Your task to perform on an android device: Go to display settings Image 0: 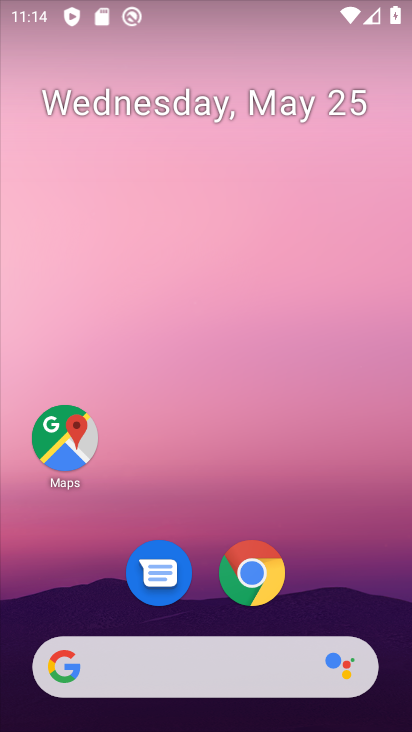
Step 0: click (145, 94)
Your task to perform on an android device: Go to display settings Image 1: 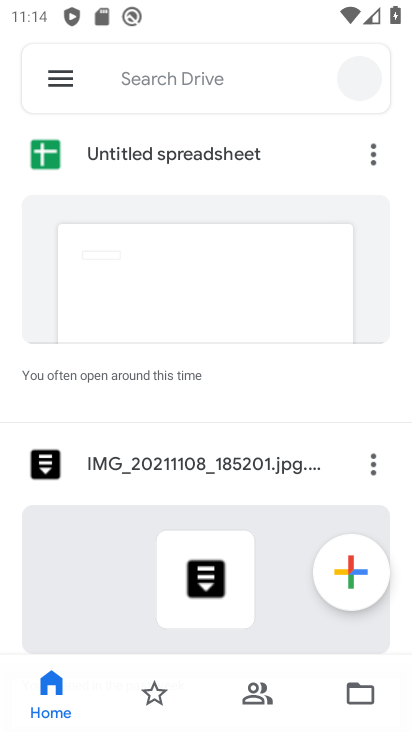
Step 1: press home button
Your task to perform on an android device: Go to display settings Image 2: 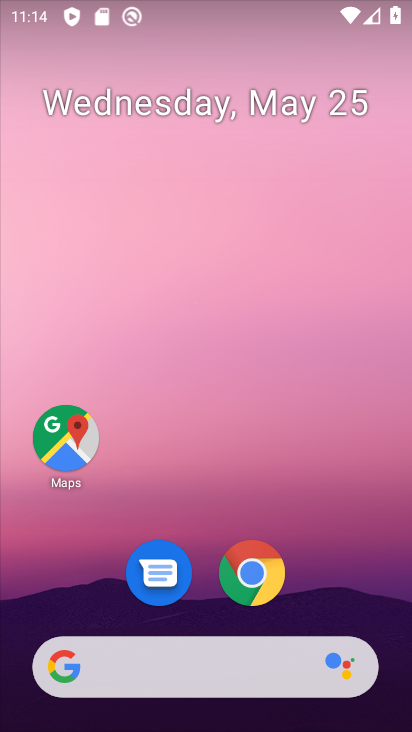
Step 2: drag from (199, 689) to (237, 170)
Your task to perform on an android device: Go to display settings Image 3: 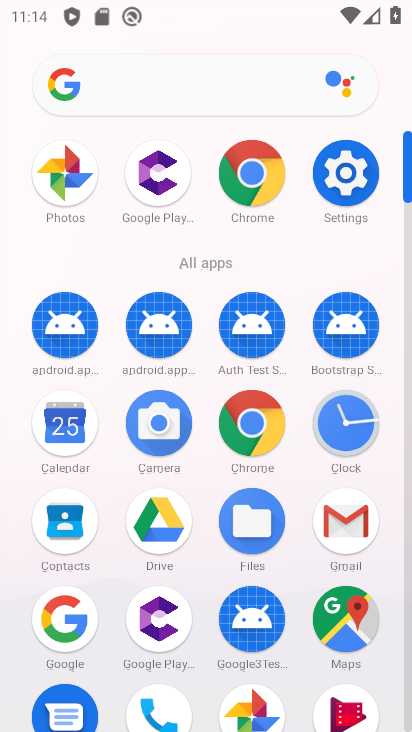
Step 3: click (332, 194)
Your task to perform on an android device: Go to display settings Image 4: 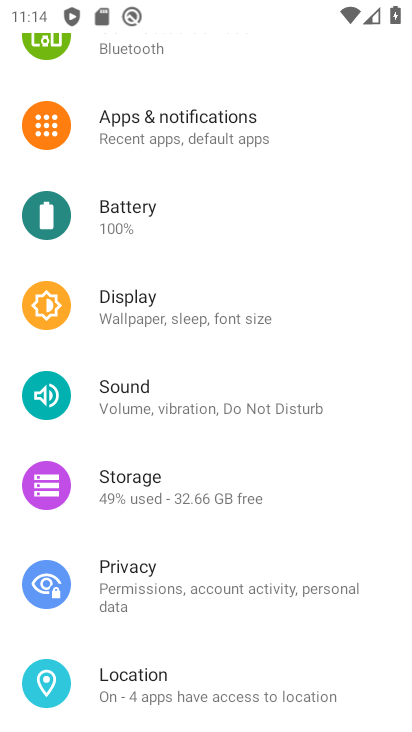
Step 4: click (152, 301)
Your task to perform on an android device: Go to display settings Image 5: 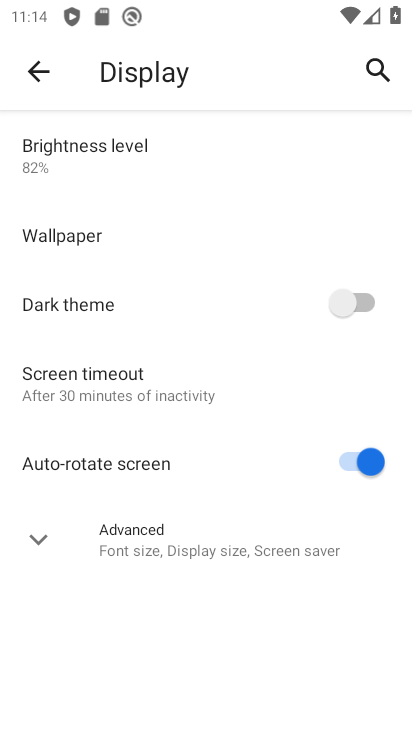
Step 5: task complete